Your task to perform on an android device: all mails in gmail Image 0: 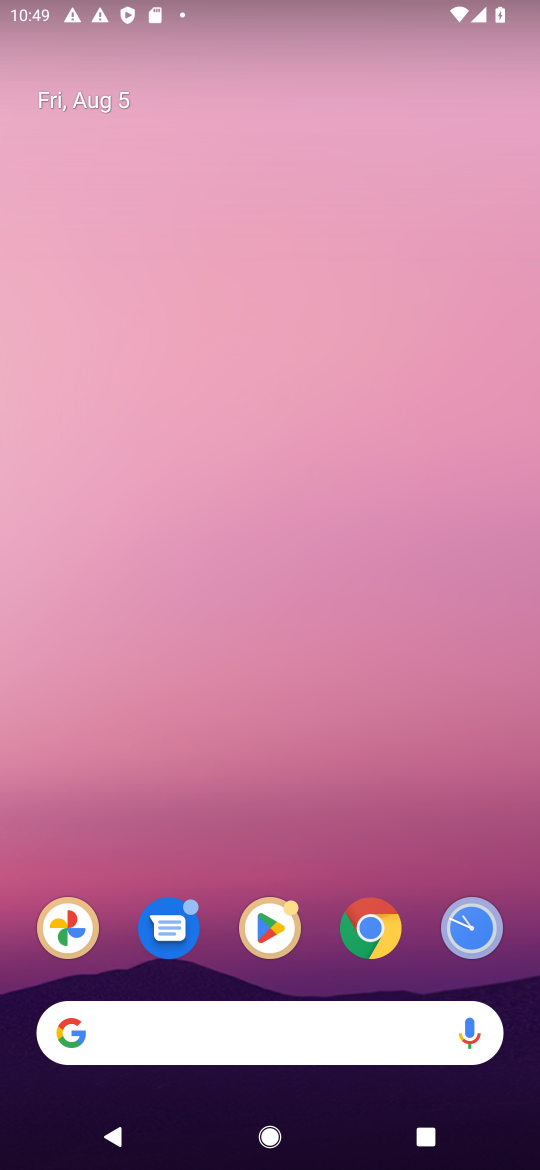
Step 0: drag from (232, 980) to (167, 142)
Your task to perform on an android device: all mails in gmail Image 1: 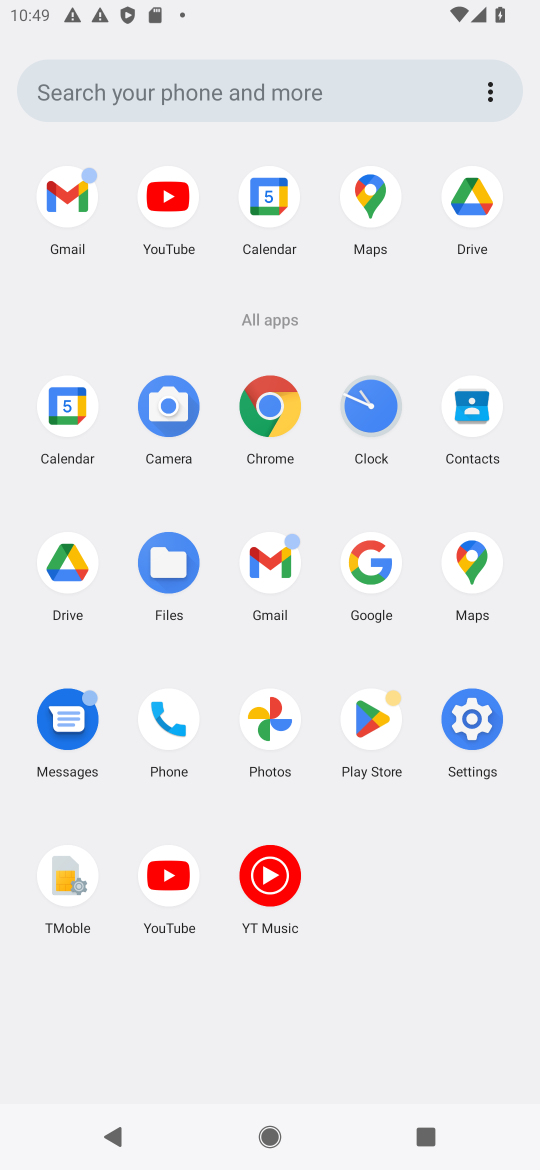
Step 1: click (272, 572)
Your task to perform on an android device: all mails in gmail Image 2: 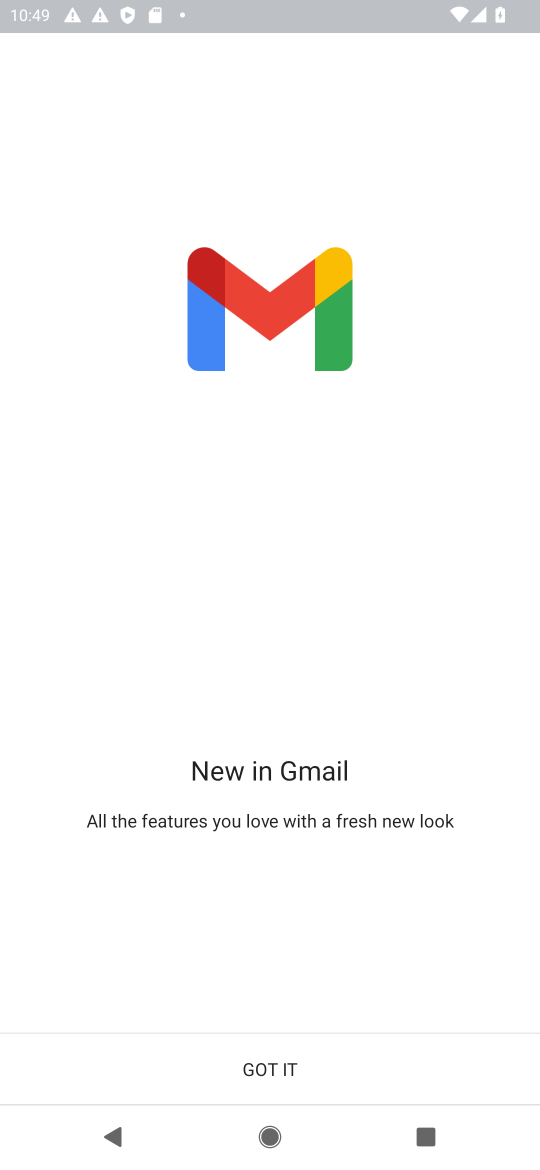
Step 2: click (305, 1054)
Your task to perform on an android device: all mails in gmail Image 3: 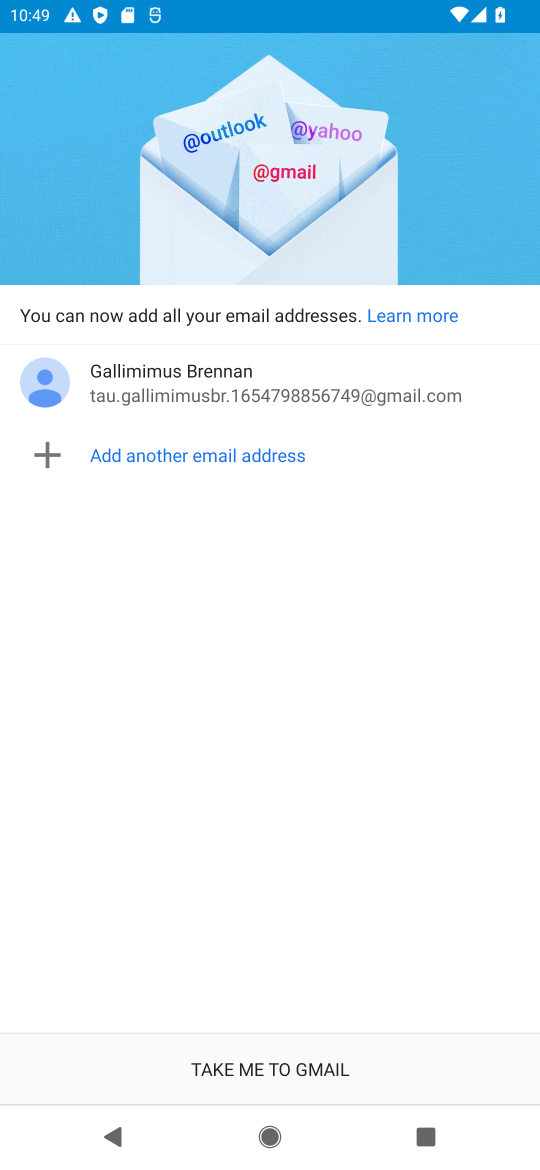
Step 3: click (305, 1054)
Your task to perform on an android device: all mails in gmail Image 4: 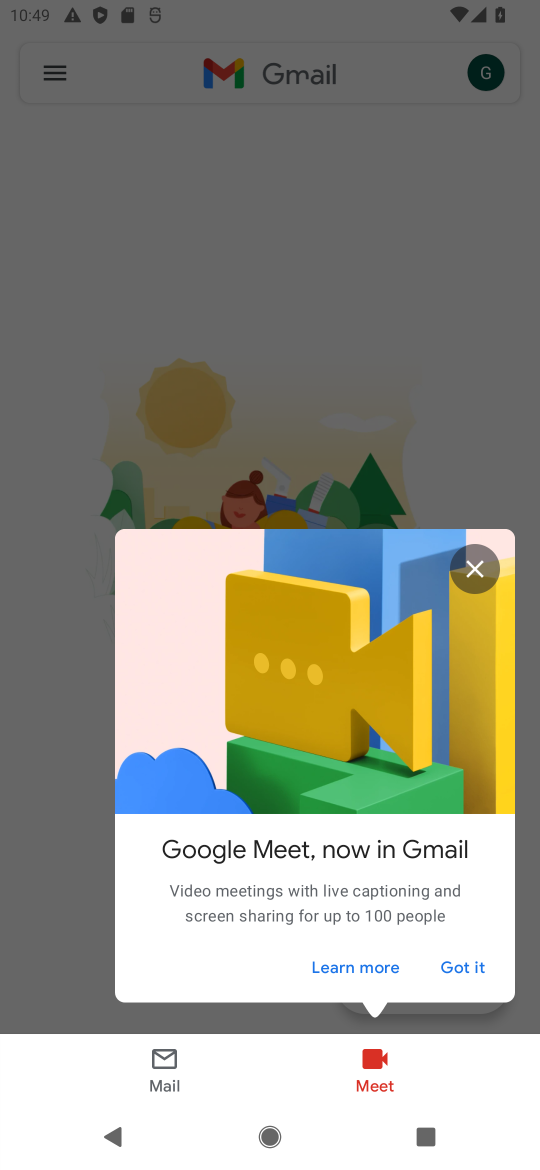
Step 4: click (474, 981)
Your task to perform on an android device: all mails in gmail Image 5: 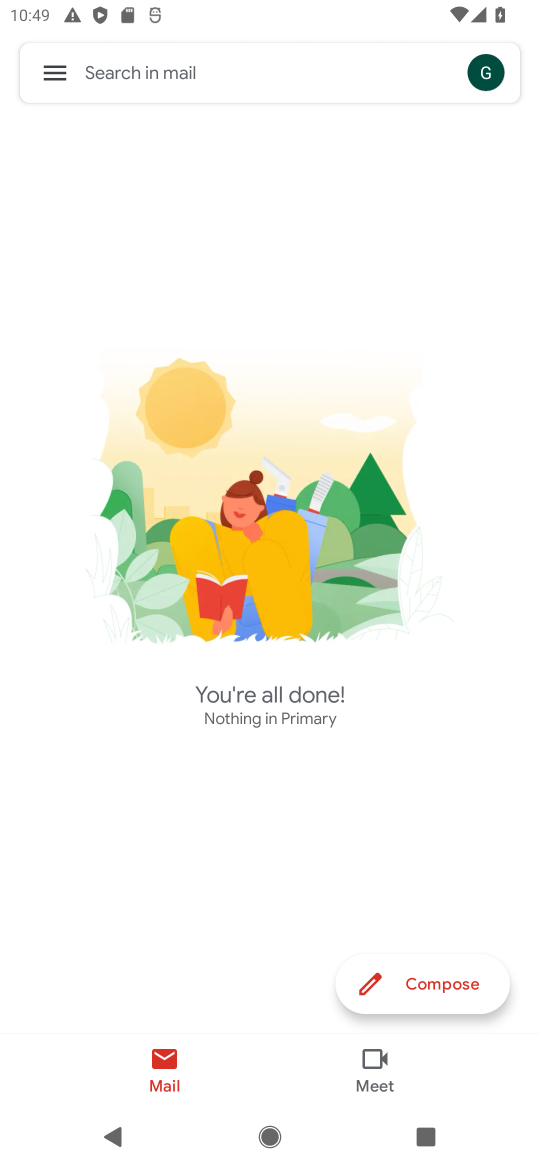
Step 5: click (64, 84)
Your task to perform on an android device: all mails in gmail Image 6: 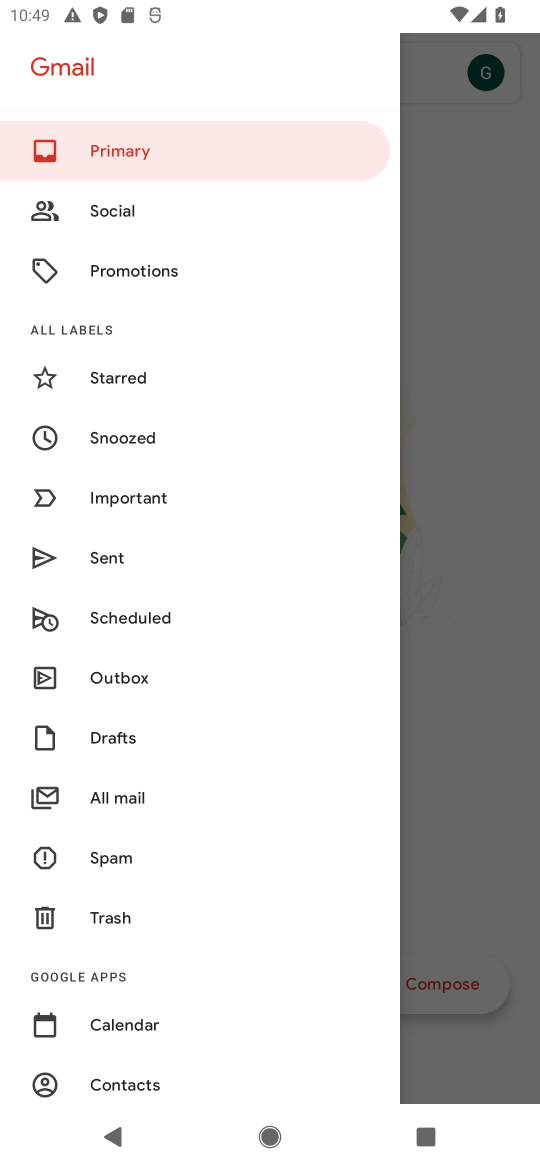
Step 6: click (85, 795)
Your task to perform on an android device: all mails in gmail Image 7: 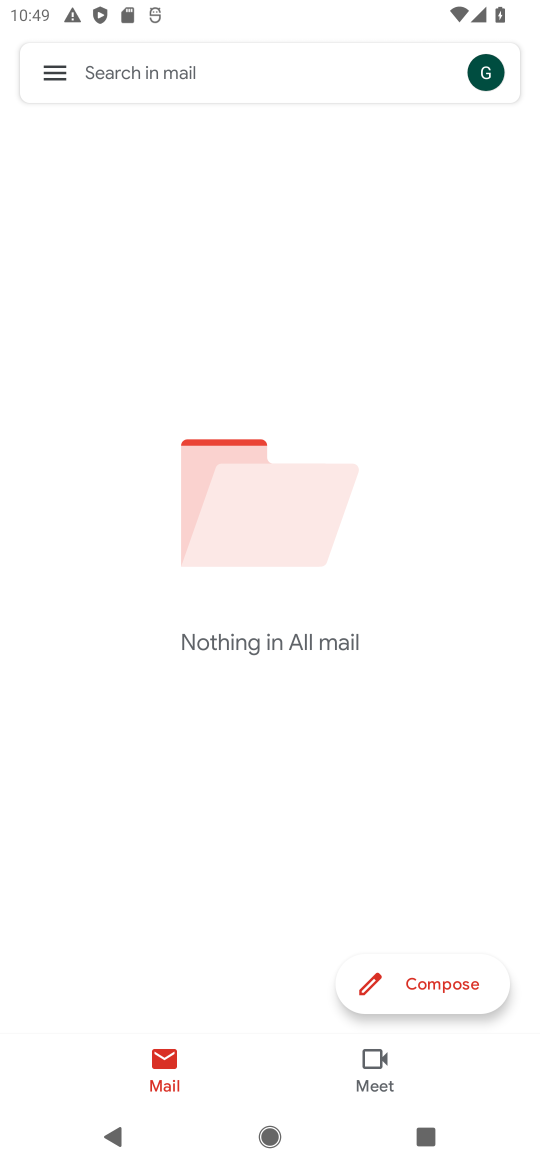
Step 7: task complete